Your task to perform on an android device: open app "ColorNote Notepad Notes" (install if not already installed) and go to login screen Image 0: 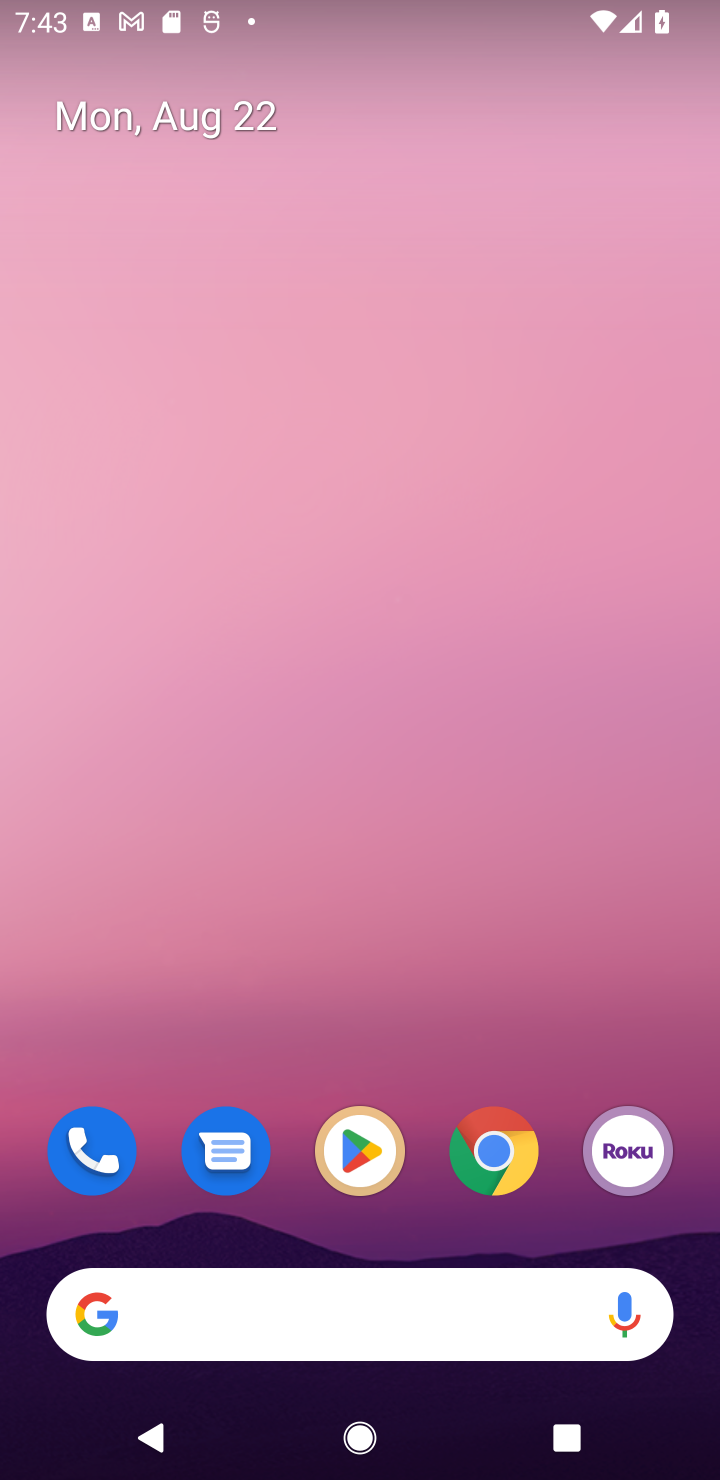
Step 0: click (362, 1148)
Your task to perform on an android device: open app "ColorNote Notepad Notes" (install if not already installed) and go to login screen Image 1: 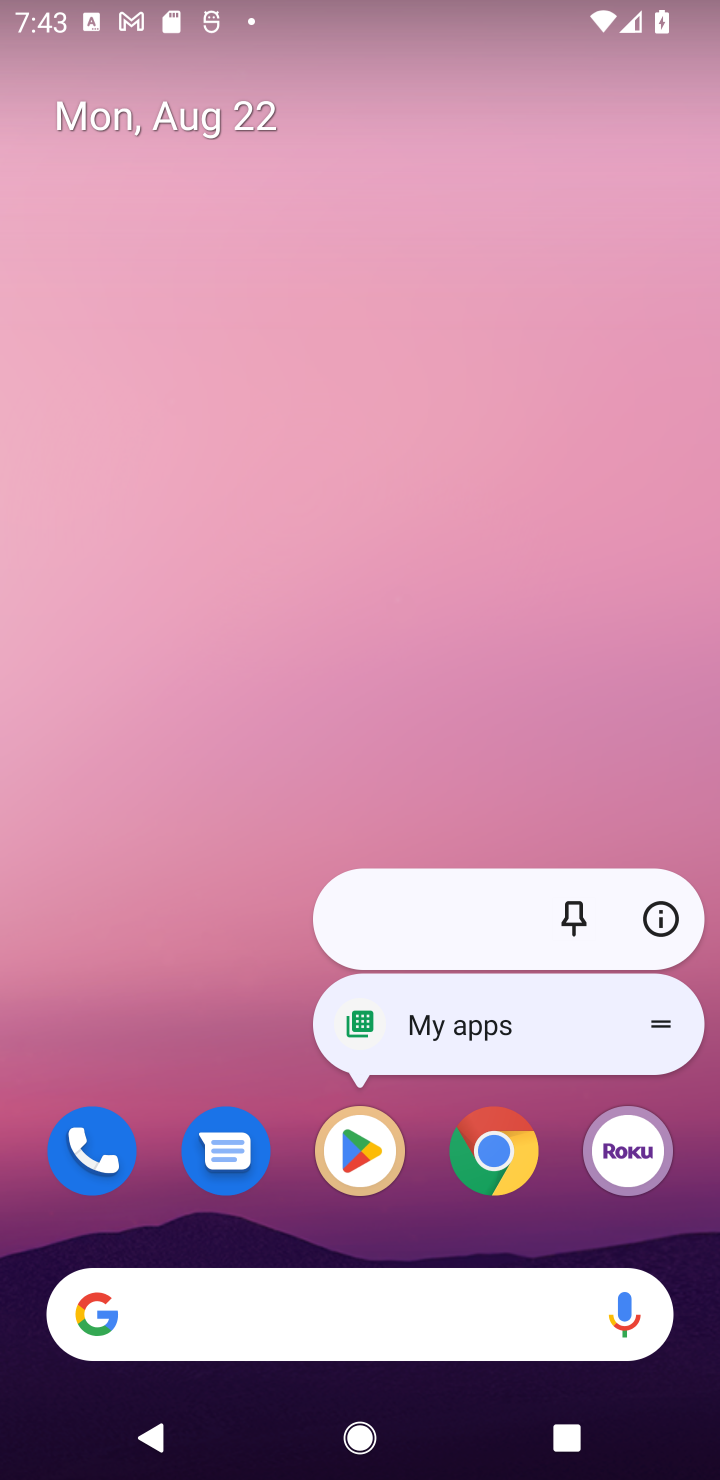
Step 1: click (362, 1159)
Your task to perform on an android device: open app "ColorNote Notepad Notes" (install if not already installed) and go to login screen Image 2: 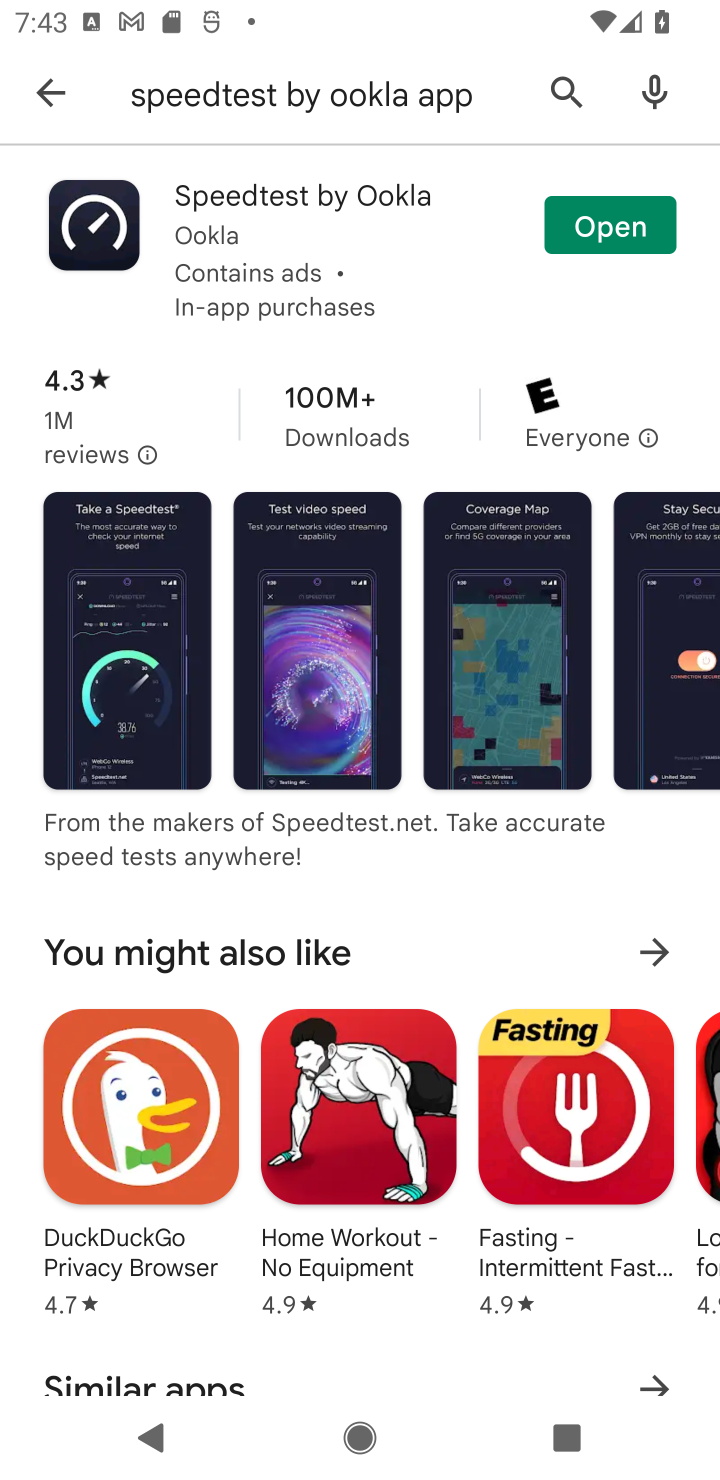
Step 2: click (555, 80)
Your task to perform on an android device: open app "ColorNote Notepad Notes" (install if not already installed) and go to login screen Image 3: 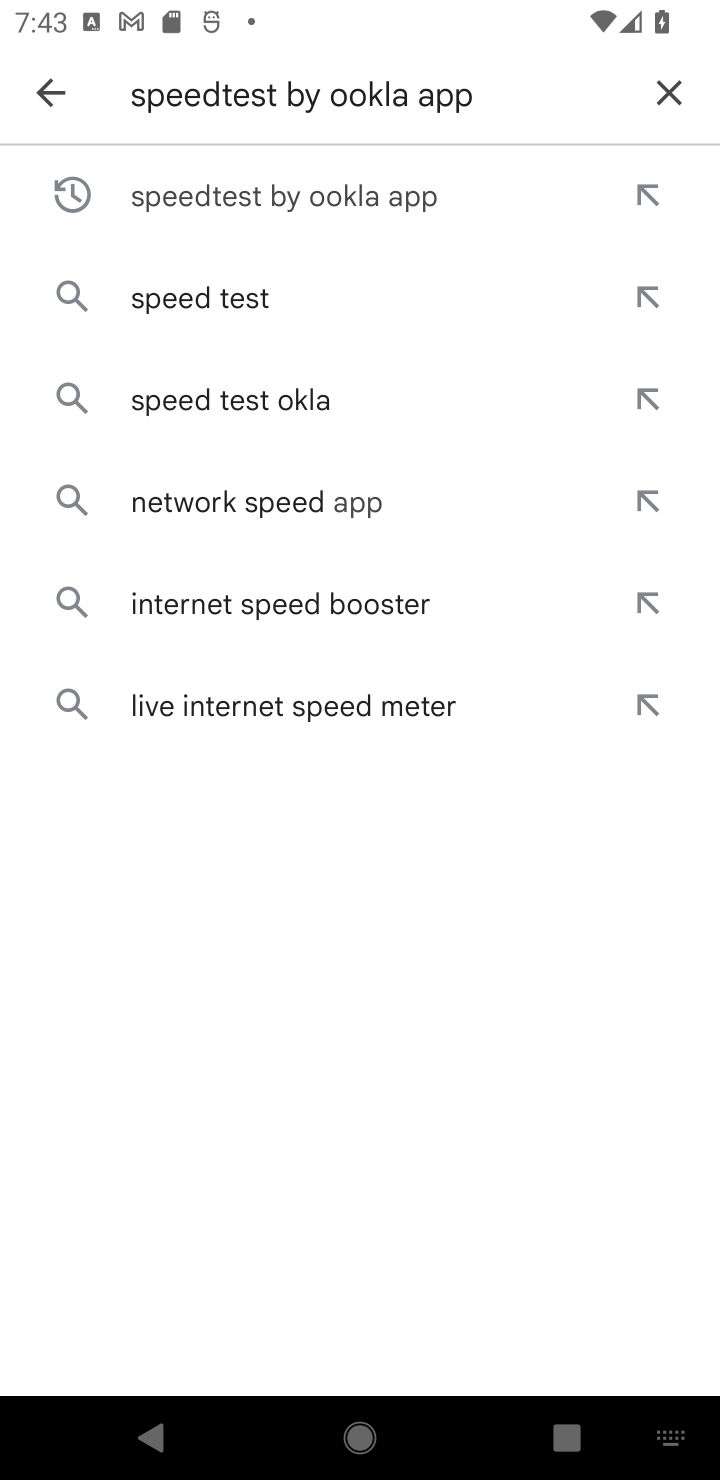
Step 3: click (676, 97)
Your task to perform on an android device: open app "ColorNote Notepad Notes" (install if not already installed) and go to login screen Image 4: 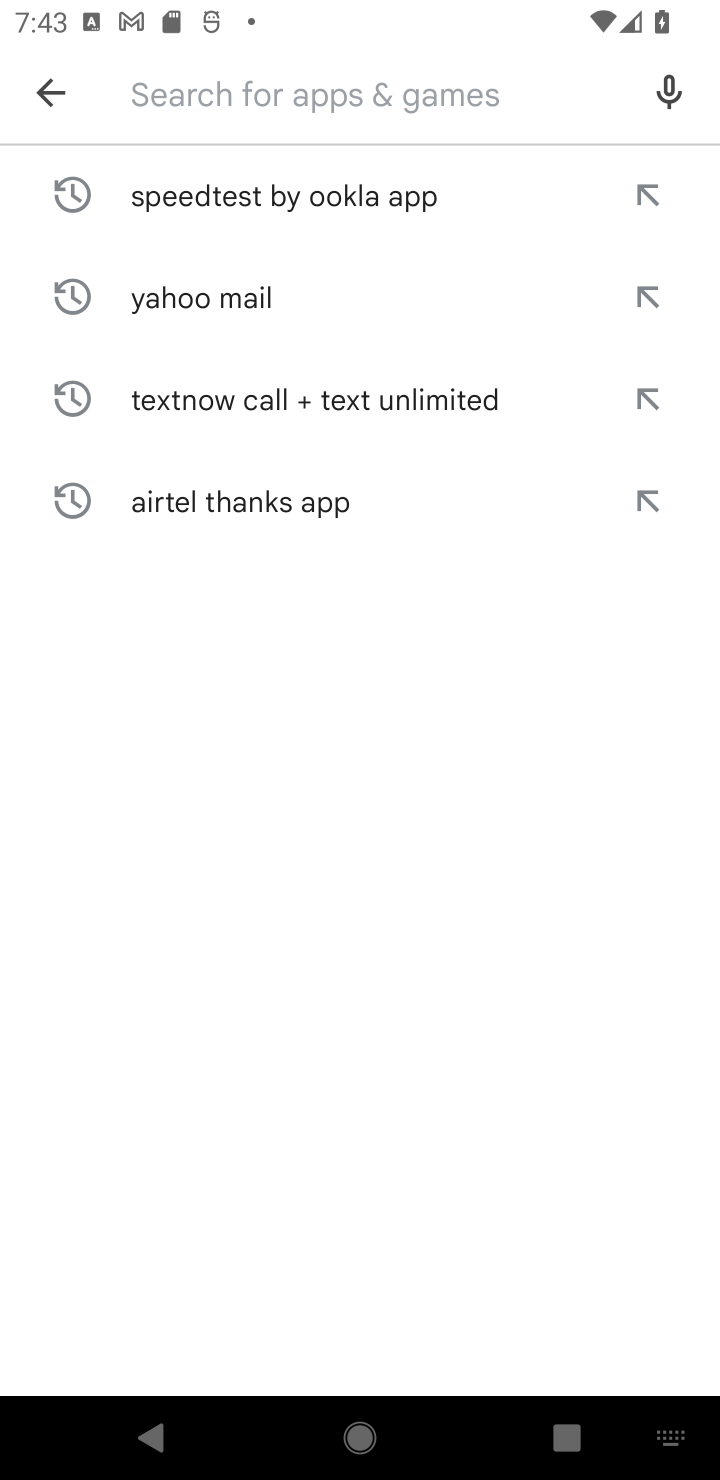
Step 4: type "ColorNote Notepad Notes"
Your task to perform on an android device: open app "ColorNote Notepad Notes" (install if not already installed) and go to login screen Image 5: 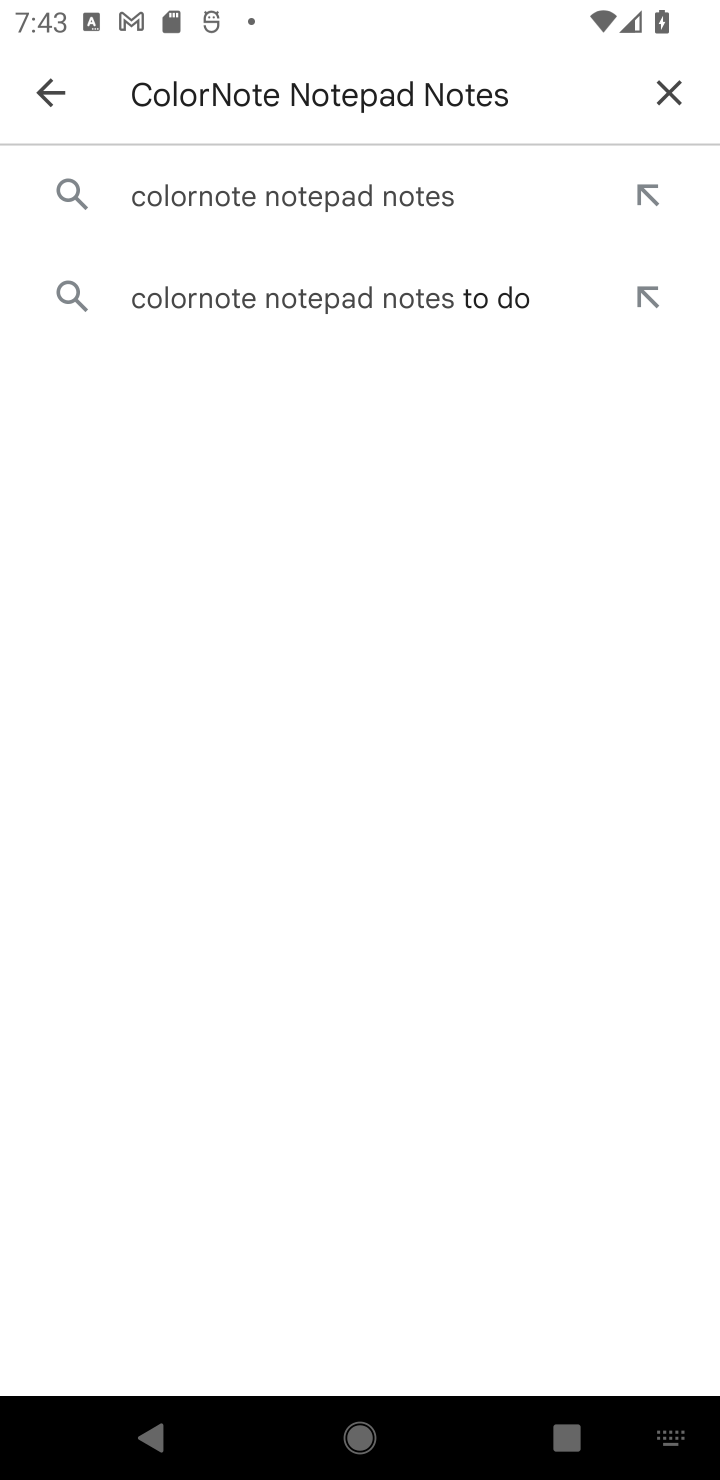
Step 5: click (365, 196)
Your task to perform on an android device: open app "ColorNote Notepad Notes" (install if not already installed) and go to login screen Image 6: 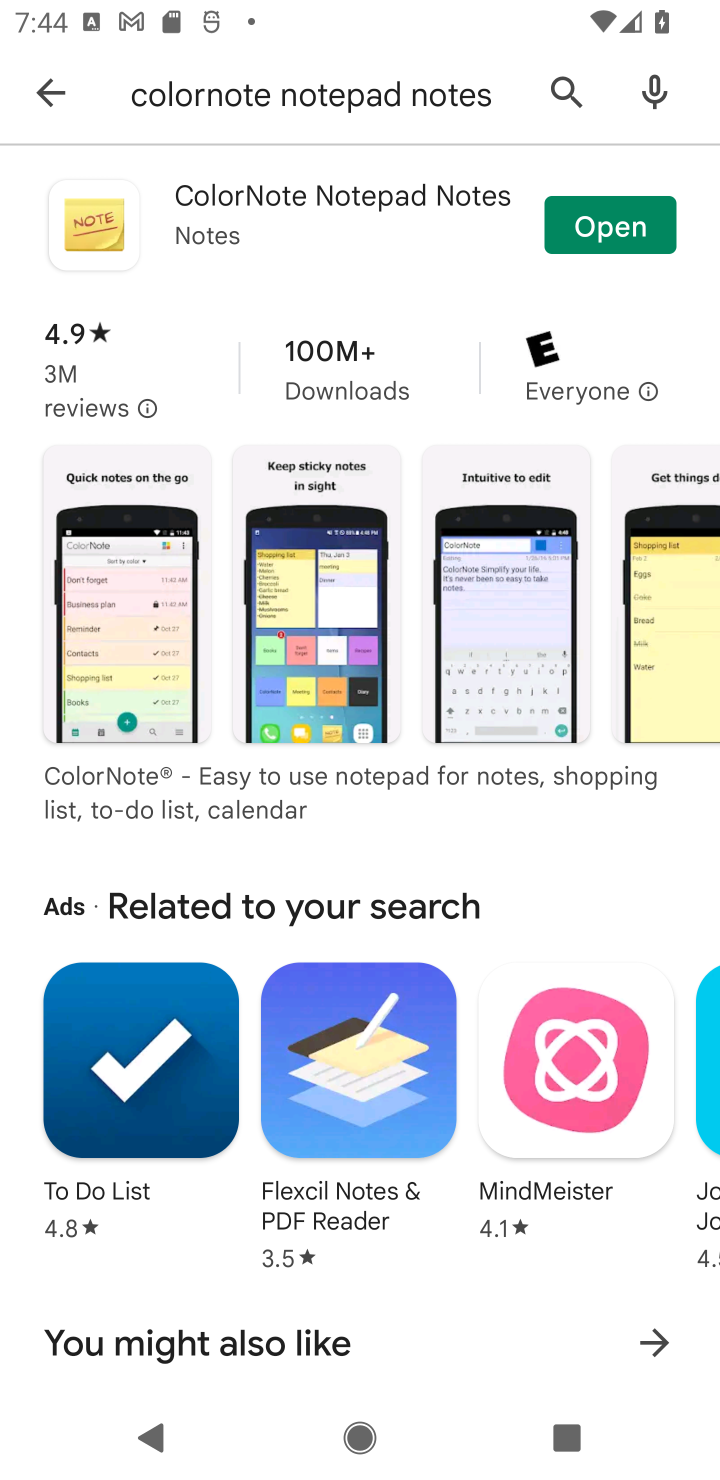
Step 6: click (608, 220)
Your task to perform on an android device: open app "ColorNote Notepad Notes" (install if not already installed) and go to login screen Image 7: 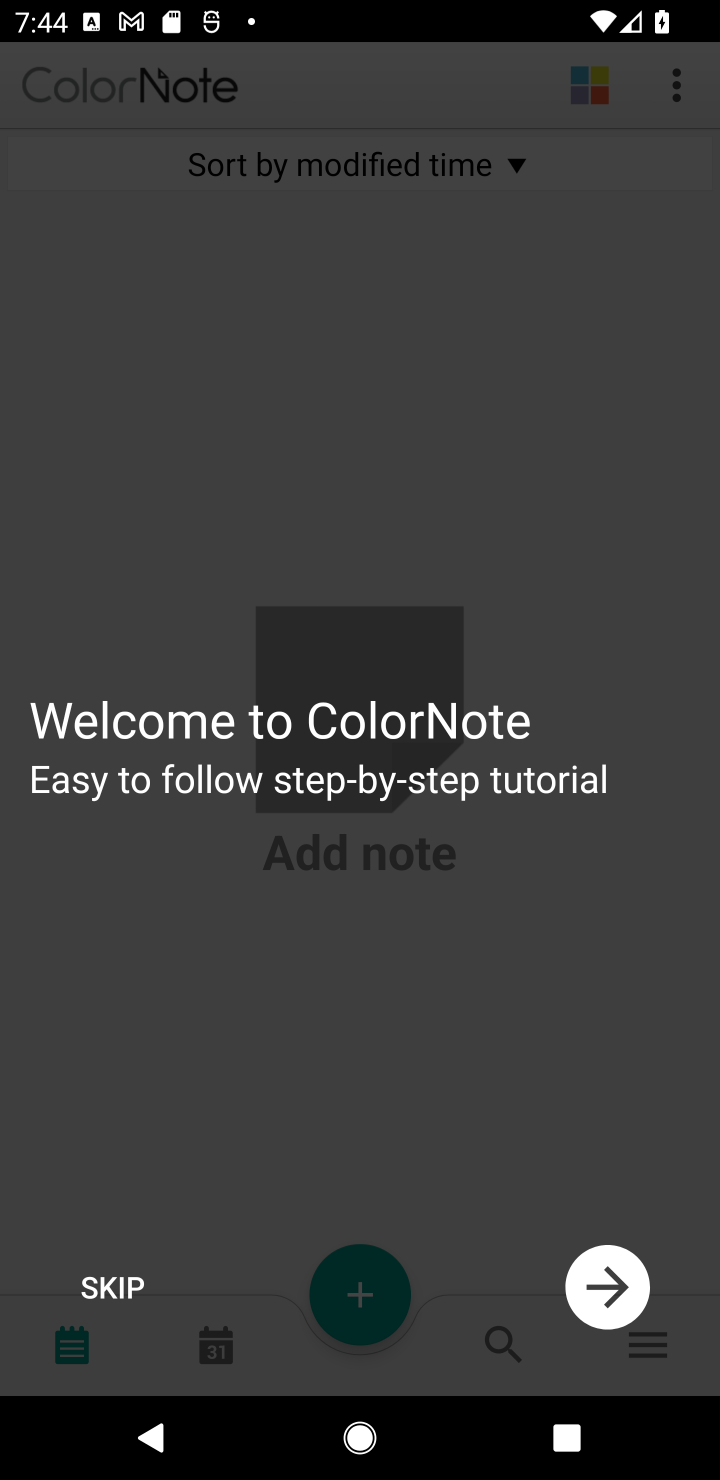
Step 7: task complete